Your task to perform on an android device: change your default location settings in chrome Image 0: 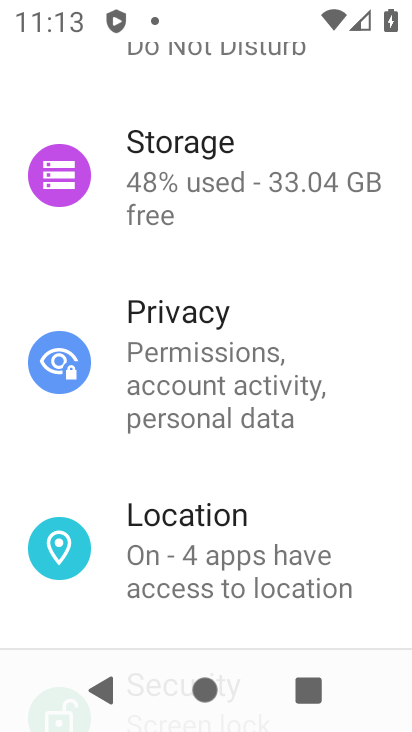
Step 0: press home button
Your task to perform on an android device: change your default location settings in chrome Image 1: 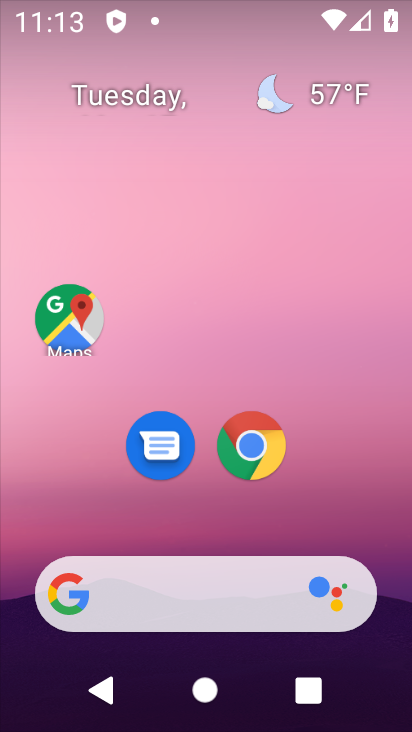
Step 1: drag from (325, 514) to (338, 133)
Your task to perform on an android device: change your default location settings in chrome Image 2: 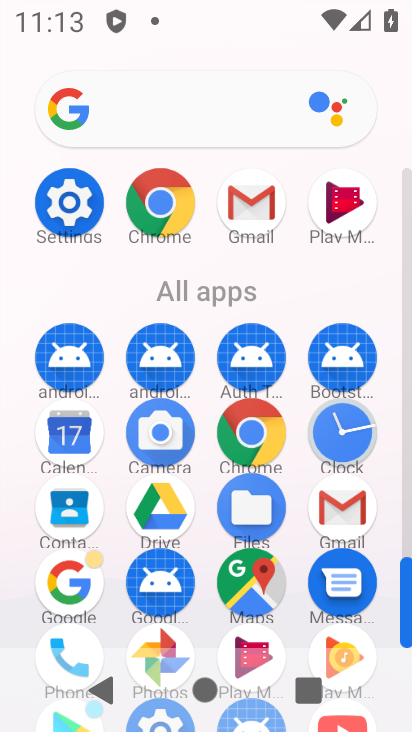
Step 2: click (257, 449)
Your task to perform on an android device: change your default location settings in chrome Image 3: 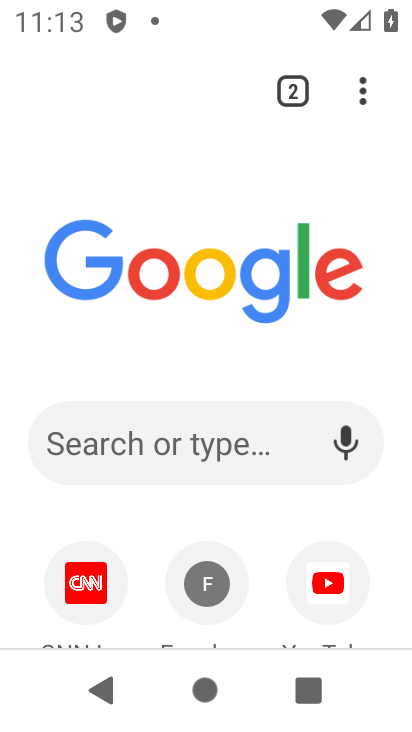
Step 3: click (369, 99)
Your task to perform on an android device: change your default location settings in chrome Image 4: 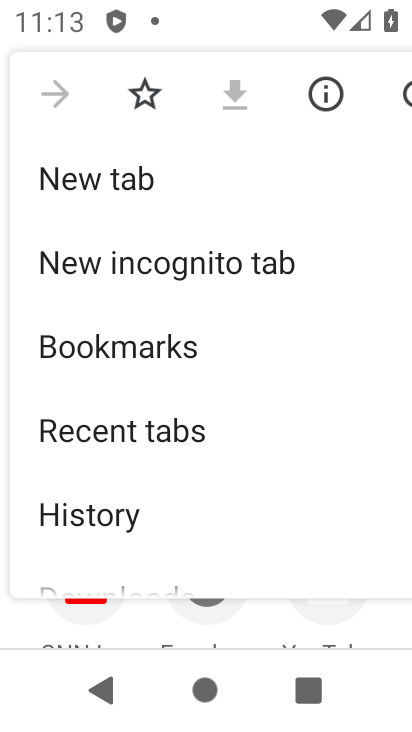
Step 4: drag from (302, 503) to (334, 328)
Your task to perform on an android device: change your default location settings in chrome Image 5: 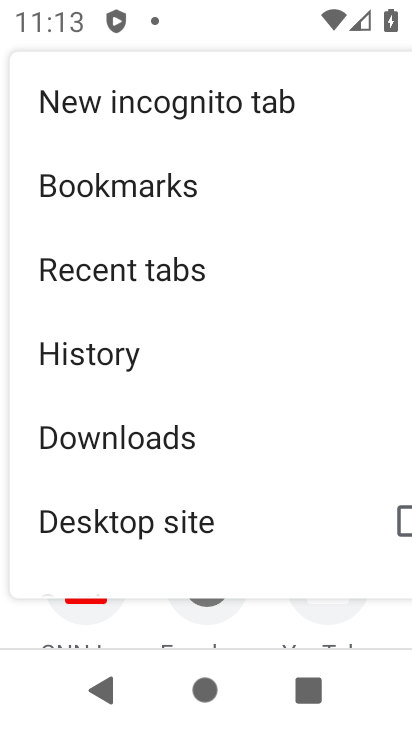
Step 5: drag from (288, 505) to (280, 317)
Your task to perform on an android device: change your default location settings in chrome Image 6: 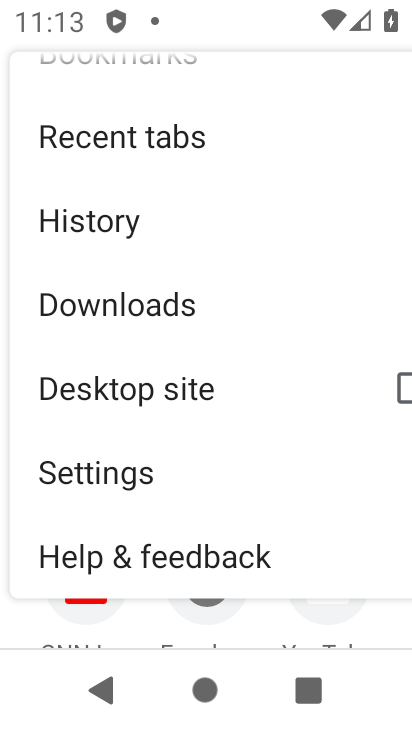
Step 6: click (124, 476)
Your task to perform on an android device: change your default location settings in chrome Image 7: 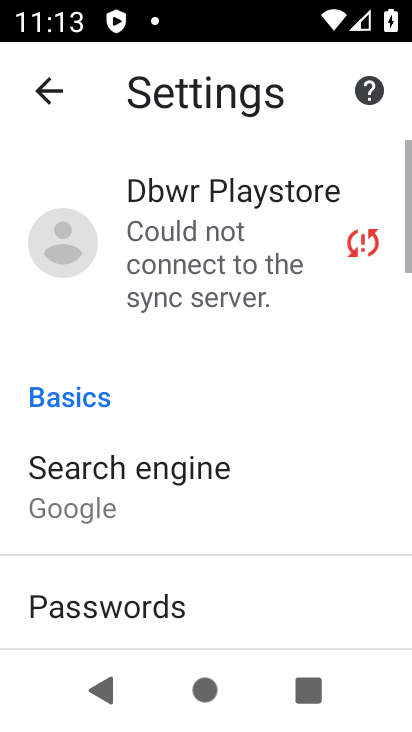
Step 7: drag from (267, 576) to (288, 377)
Your task to perform on an android device: change your default location settings in chrome Image 8: 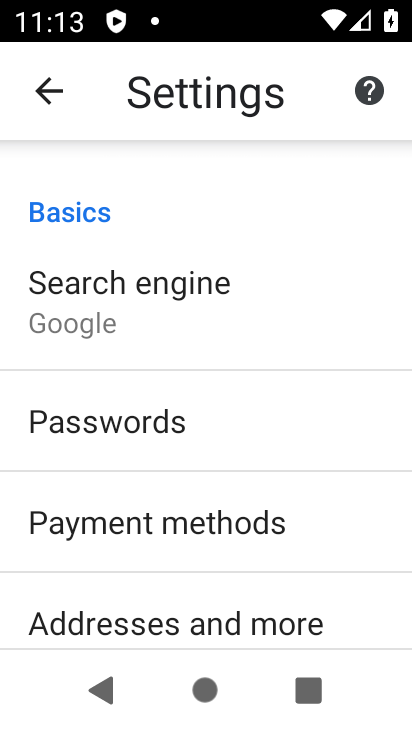
Step 8: drag from (311, 575) to (324, 420)
Your task to perform on an android device: change your default location settings in chrome Image 9: 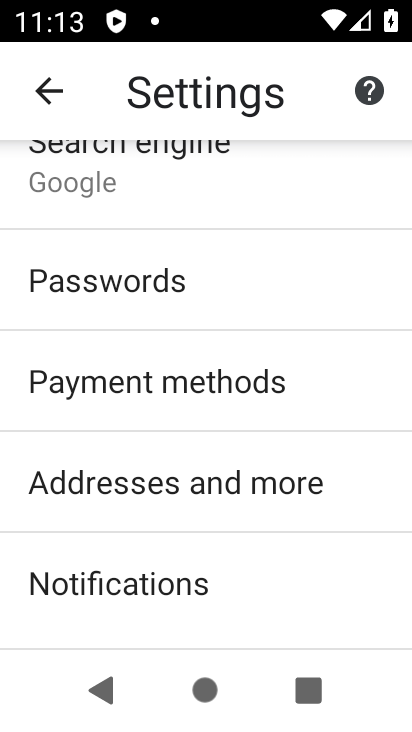
Step 9: drag from (339, 531) to (337, 389)
Your task to perform on an android device: change your default location settings in chrome Image 10: 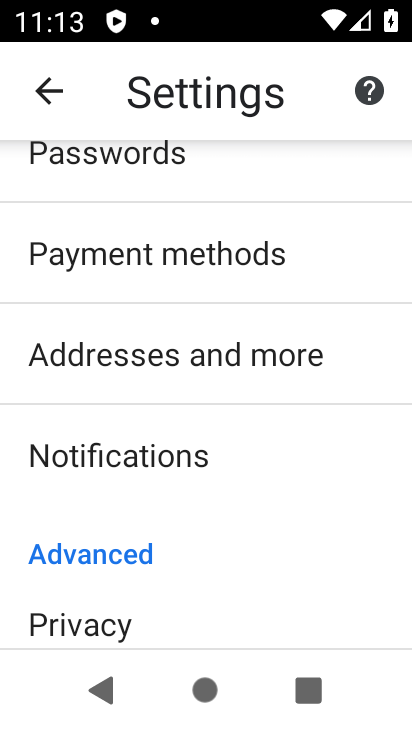
Step 10: drag from (332, 555) to (334, 392)
Your task to perform on an android device: change your default location settings in chrome Image 11: 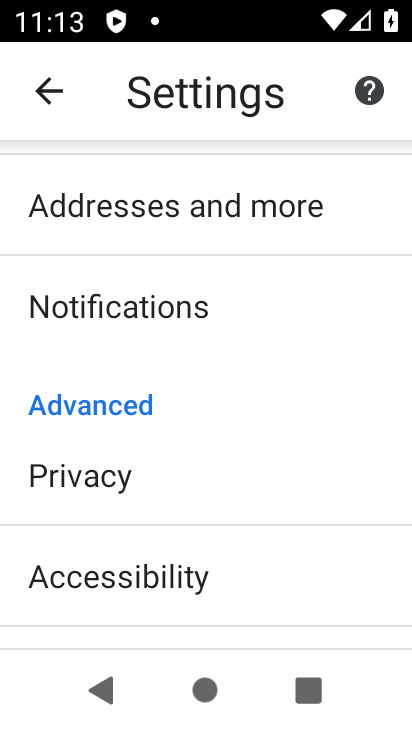
Step 11: drag from (314, 579) to (319, 373)
Your task to perform on an android device: change your default location settings in chrome Image 12: 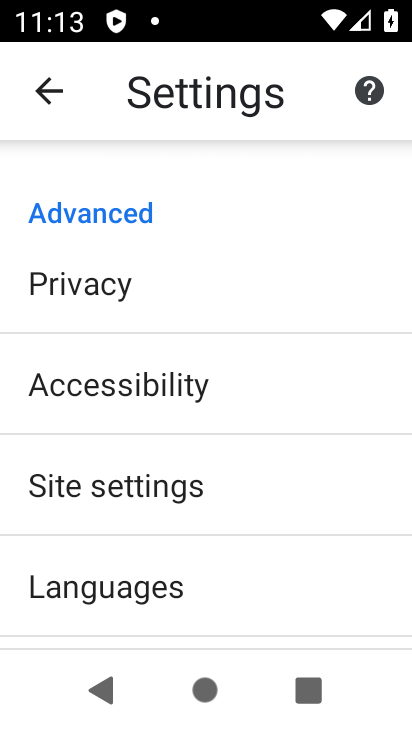
Step 12: click (313, 498)
Your task to perform on an android device: change your default location settings in chrome Image 13: 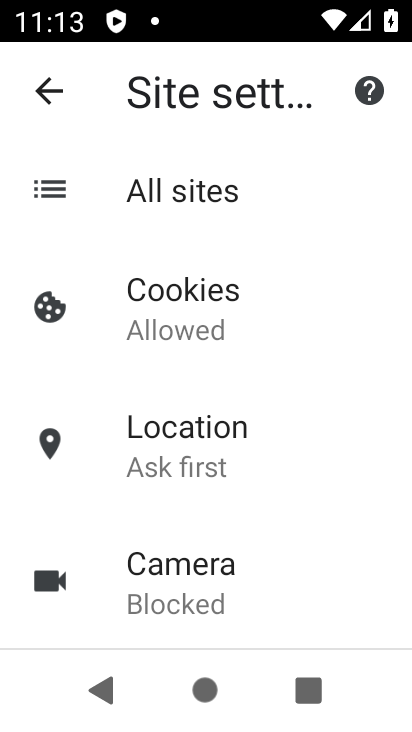
Step 13: click (251, 452)
Your task to perform on an android device: change your default location settings in chrome Image 14: 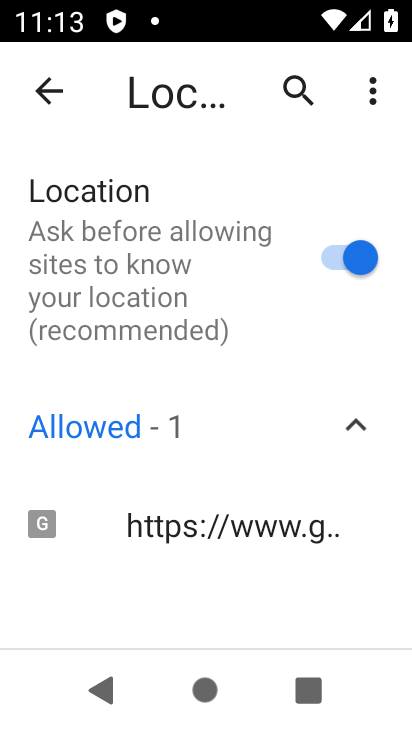
Step 14: click (340, 250)
Your task to perform on an android device: change your default location settings in chrome Image 15: 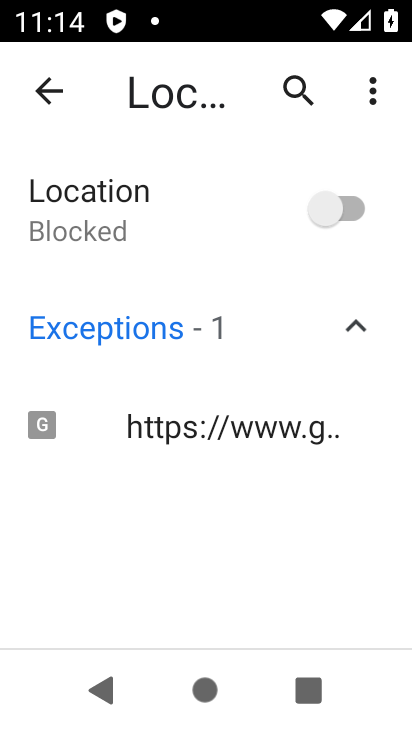
Step 15: task complete